Your task to perform on an android device: uninstall "Pandora - Music & Podcasts" Image 0: 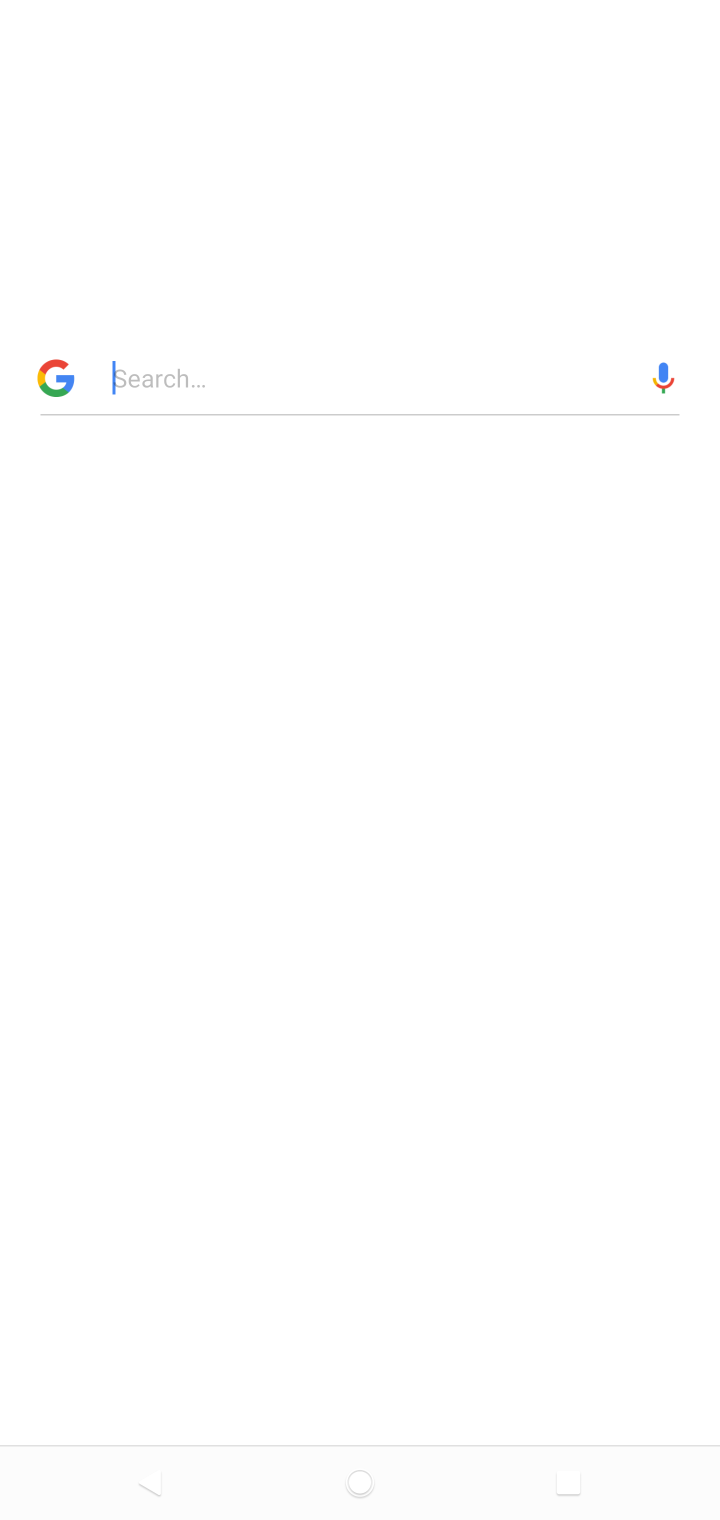
Step 0: press home button
Your task to perform on an android device: uninstall "Pandora - Music & Podcasts" Image 1: 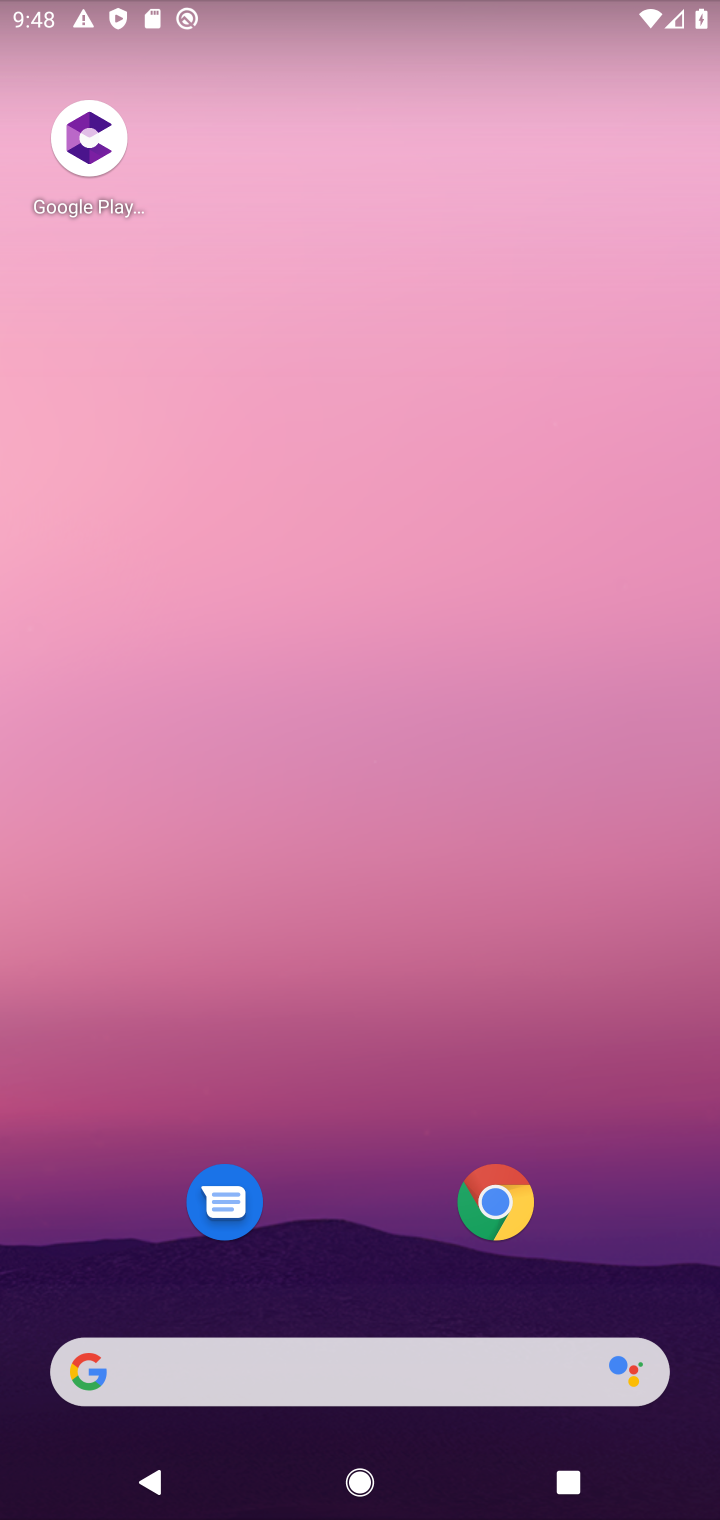
Step 1: click (407, 1384)
Your task to perform on an android device: uninstall "Pandora - Music & Podcasts" Image 2: 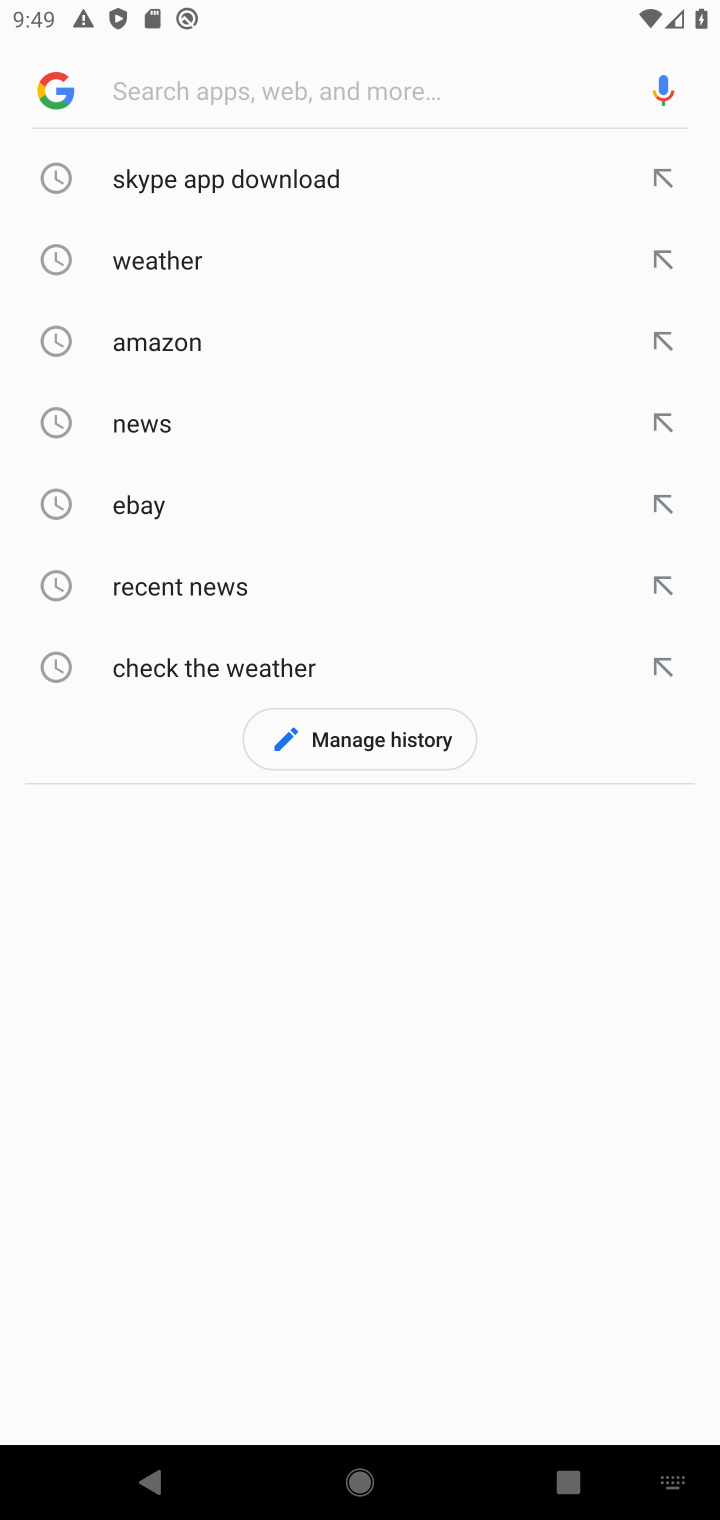
Step 2: type "pandora"
Your task to perform on an android device: uninstall "Pandora - Music & Podcasts" Image 3: 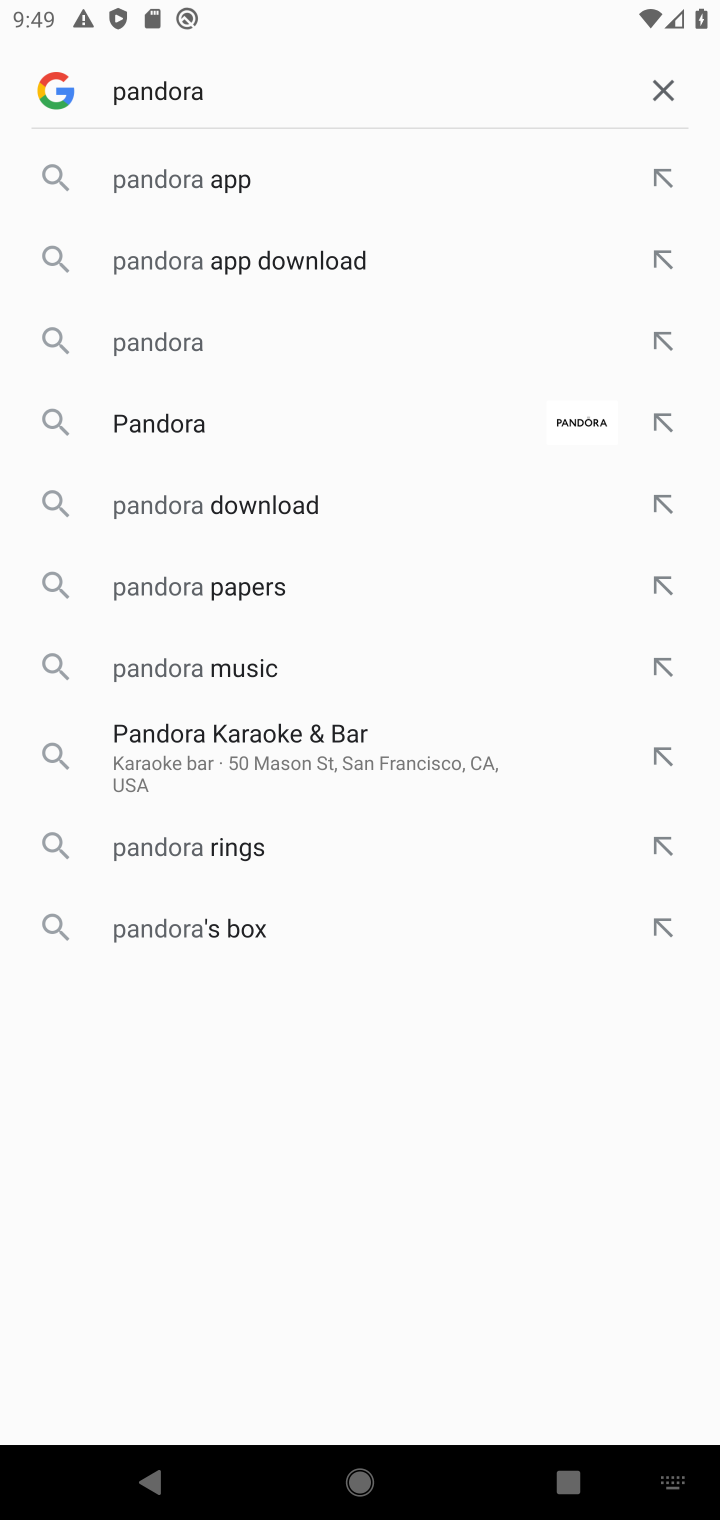
Step 3: task complete